Your task to perform on an android device: turn on location history Image 0: 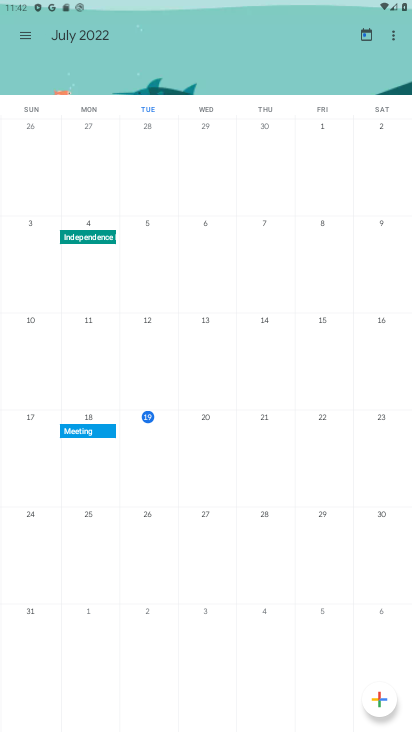
Step 0: press home button
Your task to perform on an android device: turn on location history Image 1: 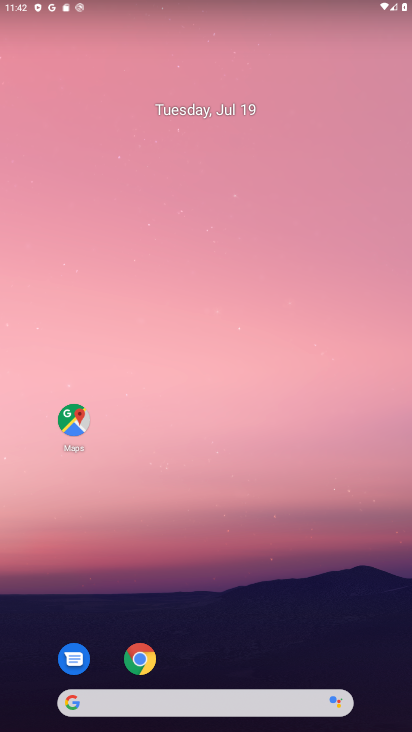
Step 1: drag from (317, 569) to (235, 96)
Your task to perform on an android device: turn on location history Image 2: 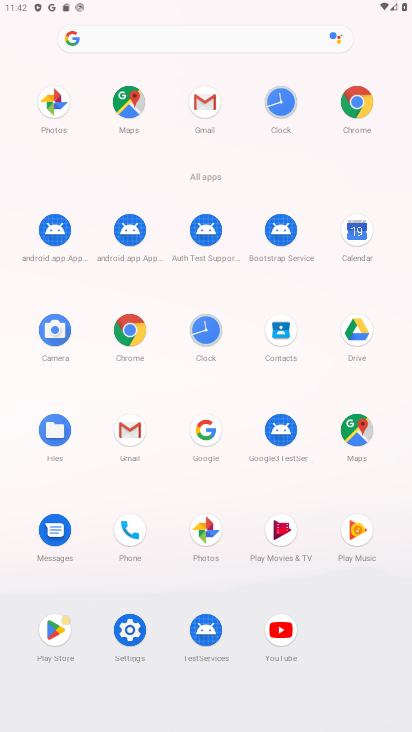
Step 2: drag from (321, 608) to (327, 220)
Your task to perform on an android device: turn on location history Image 3: 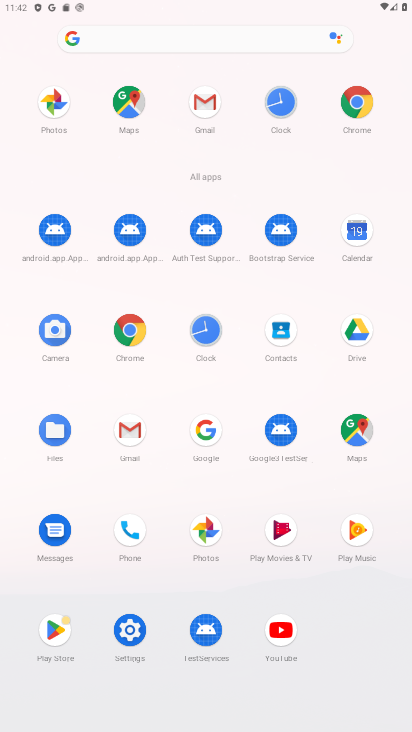
Step 3: drag from (339, 380) to (80, 394)
Your task to perform on an android device: turn on location history Image 4: 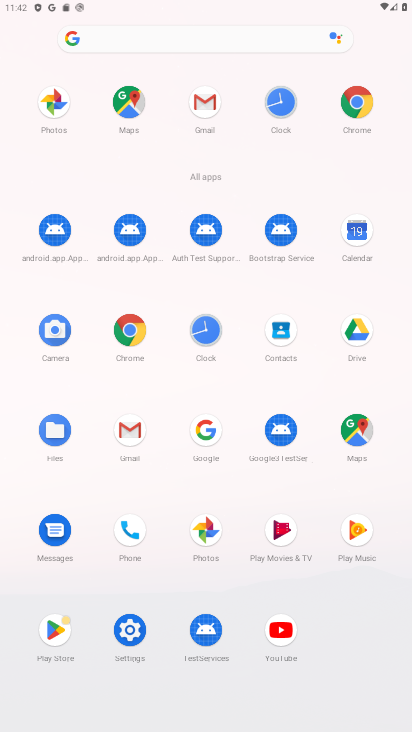
Step 4: drag from (369, 389) to (21, 382)
Your task to perform on an android device: turn on location history Image 5: 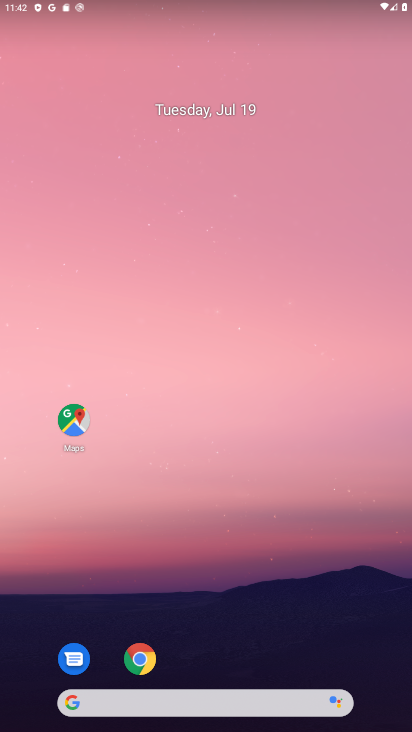
Step 5: drag from (320, 600) to (330, 63)
Your task to perform on an android device: turn on location history Image 6: 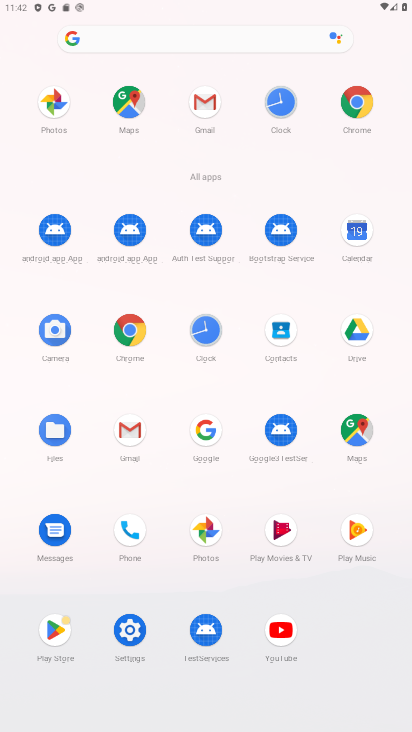
Step 6: drag from (357, 372) to (50, 359)
Your task to perform on an android device: turn on location history Image 7: 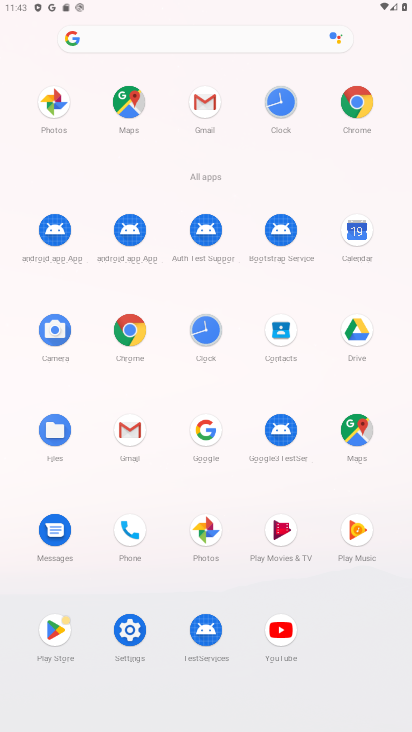
Step 7: drag from (297, 573) to (376, 162)
Your task to perform on an android device: turn on location history Image 8: 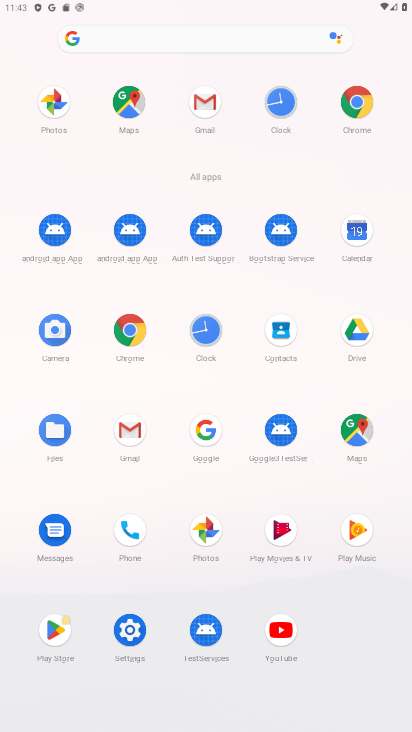
Step 8: click (134, 629)
Your task to perform on an android device: turn on location history Image 9: 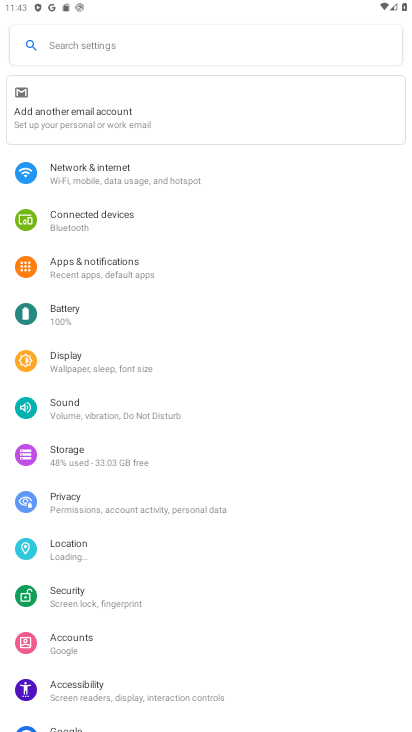
Step 9: click (78, 565)
Your task to perform on an android device: turn on location history Image 10: 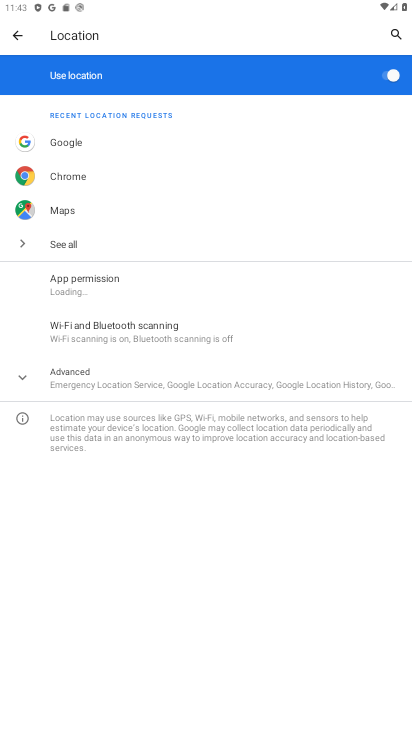
Step 10: click (86, 371)
Your task to perform on an android device: turn on location history Image 11: 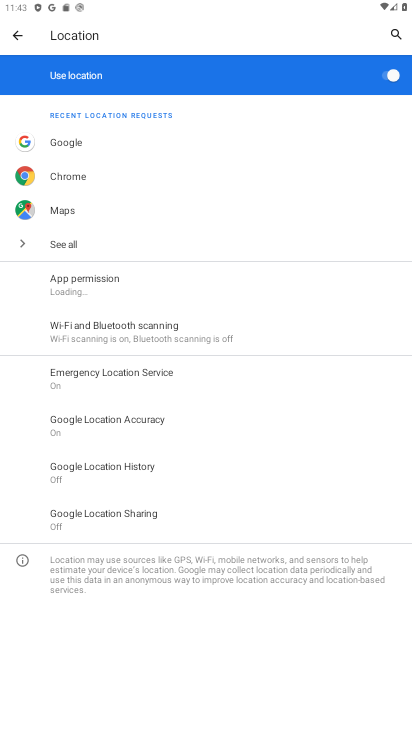
Step 11: click (128, 470)
Your task to perform on an android device: turn on location history Image 12: 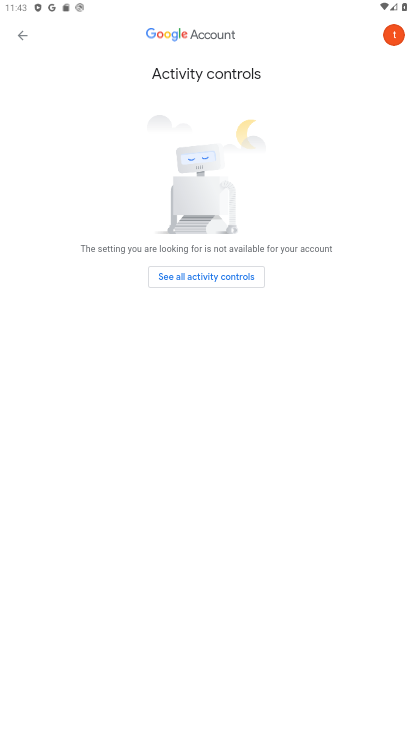
Step 12: task complete